Your task to perform on an android device: Go to ESPN.com Image 0: 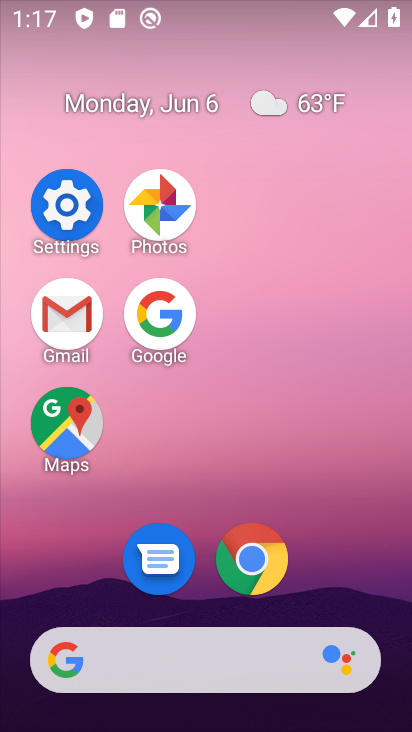
Step 0: click (274, 562)
Your task to perform on an android device: Go to ESPN.com Image 1: 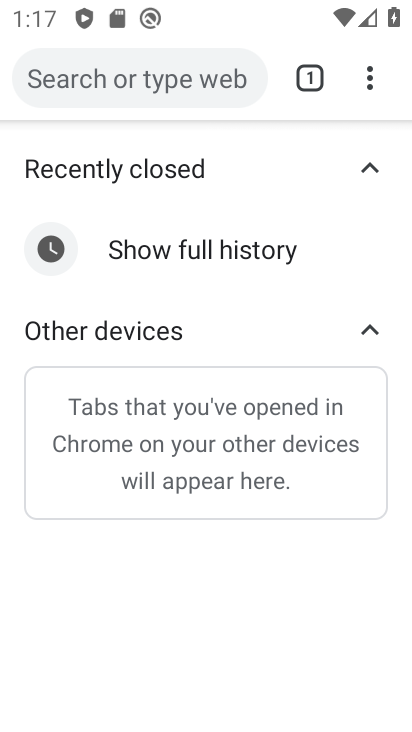
Step 1: click (312, 95)
Your task to perform on an android device: Go to ESPN.com Image 2: 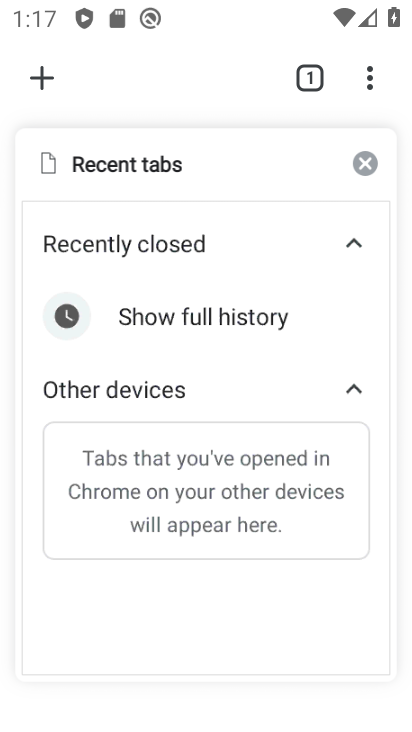
Step 2: click (47, 76)
Your task to perform on an android device: Go to ESPN.com Image 3: 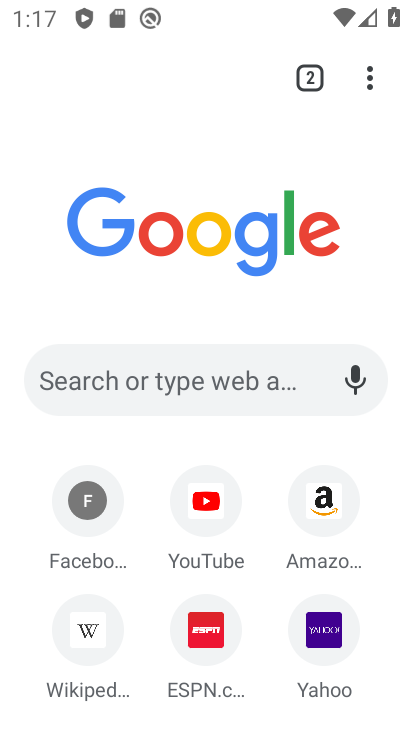
Step 3: click (214, 621)
Your task to perform on an android device: Go to ESPN.com Image 4: 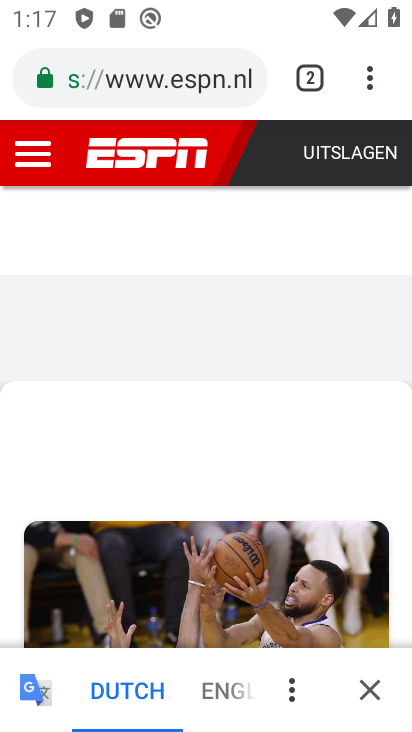
Step 4: task complete